Your task to perform on an android device: Open the phone app and click the voicemail tab. Image 0: 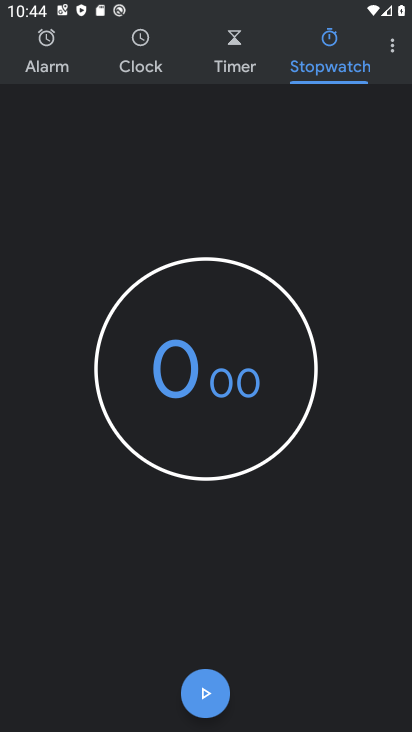
Step 0: press home button
Your task to perform on an android device: Open the phone app and click the voicemail tab. Image 1: 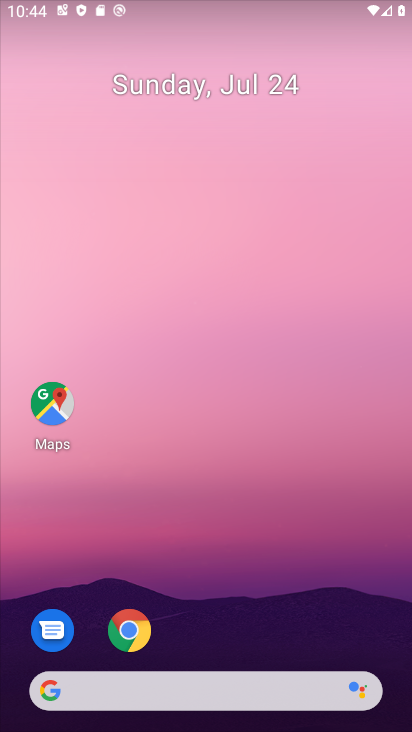
Step 1: drag from (189, 428) to (142, 80)
Your task to perform on an android device: Open the phone app and click the voicemail tab. Image 2: 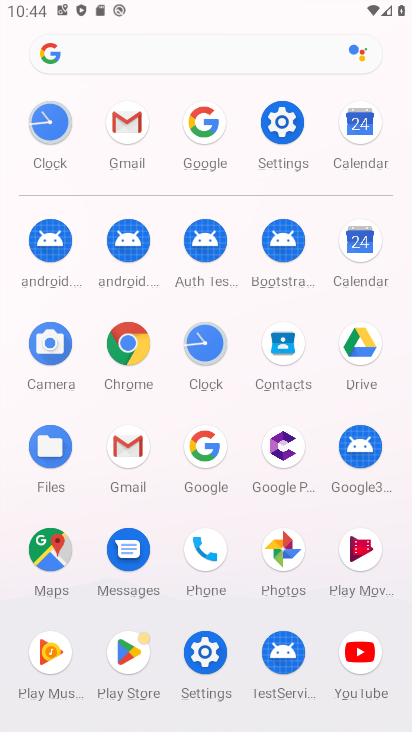
Step 2: click (200, 540)
Your task to perform on an android device: Open the phone app and click the voicemail tab. Image 3: 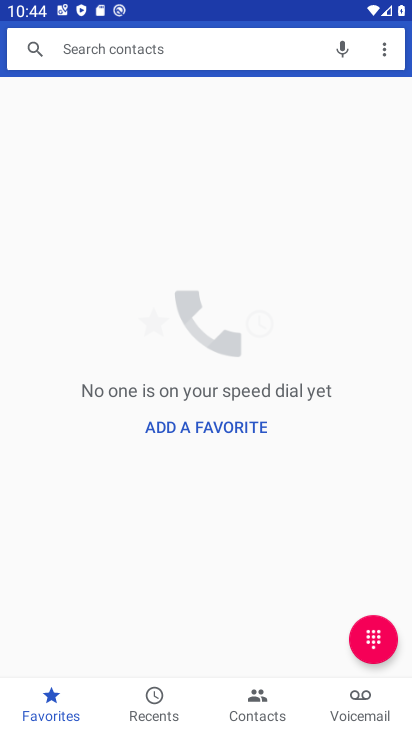
Step 3: click (338, 692)
Your task to perform on an android device: Open the phone app and click the voicemail tab. Image 4: 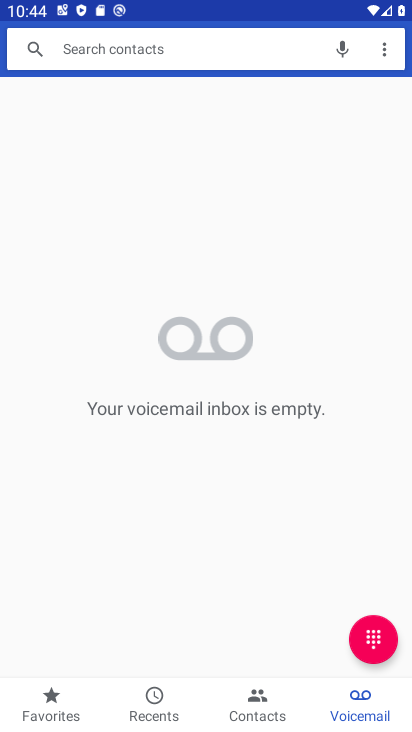
Step 4: task complete